Your task to perform on an android device: What's on my calendar today? Image 0: 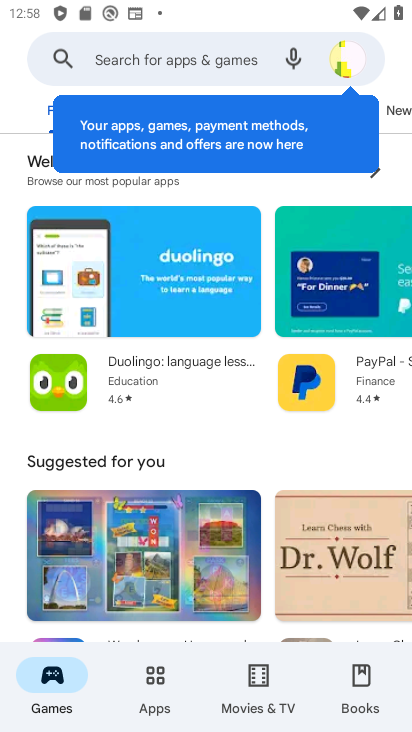
Step 0: press back button
Your task to perform on an android device: What's on my calendar today? Image 1: 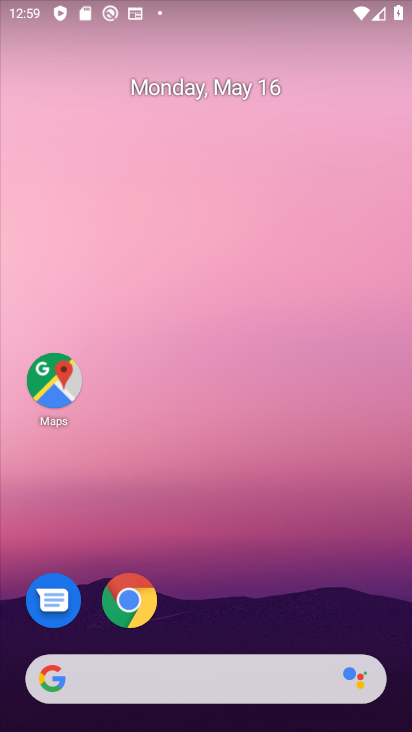
Step 1: drag from (332, 559) to (331, 233)
Your task to perform on an android device: What's on my calendar today? Image 2: 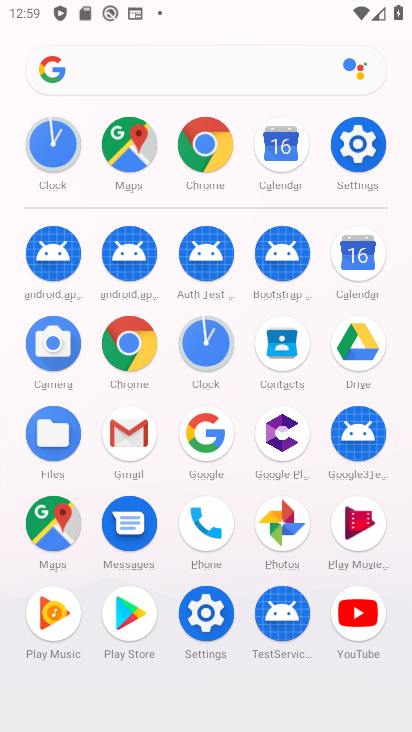
Step 2: click (356, 264)
Your task to perform on an android device: What's on my calendar today? Image 3: 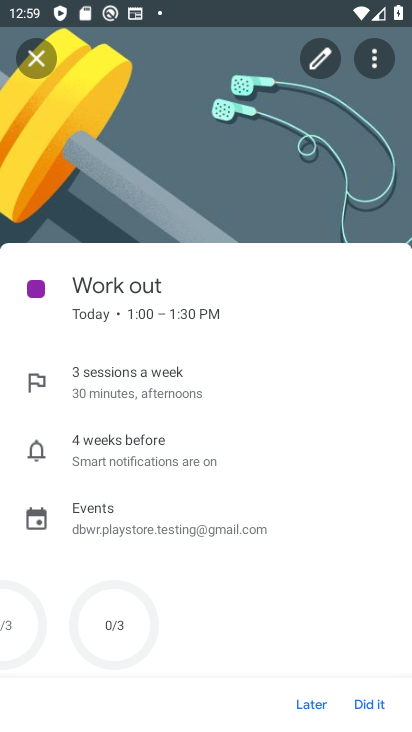
Step 3: task complete